Your task to perform on an android device: Open settings on Google Maps Image 0: 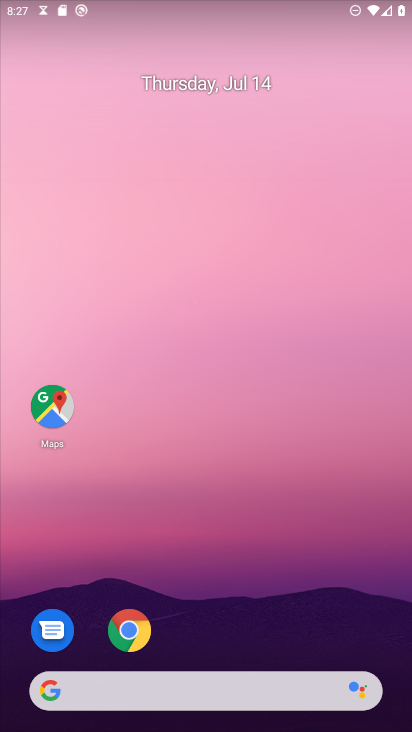
Step 0: click (50, 394)
Your task to perform on an android device: Open settings on Google Maps Image 1: 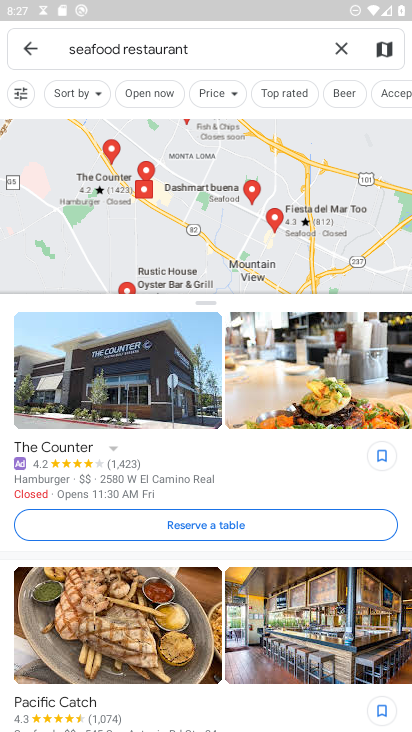
Step 1: click (31, 41)
Your task to perform on an android device: Open settings on Google Maps Image 2: 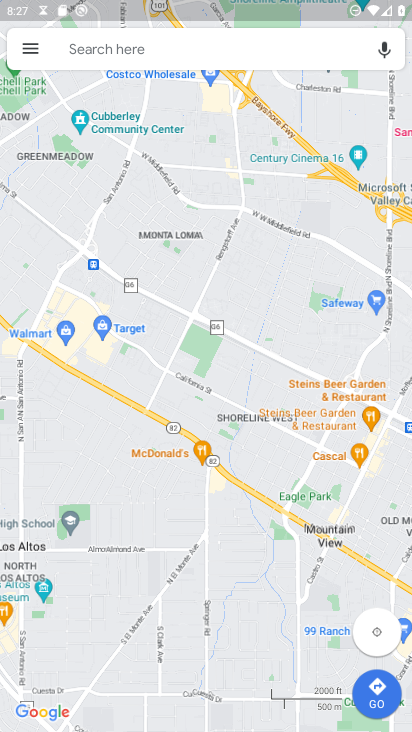
Step 2: click (31, 41)
Your task to perform on an android device: Open settings on Google Maps Image 3: 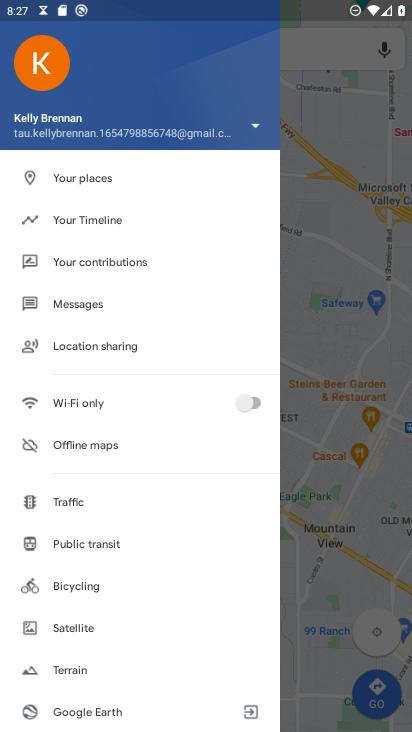
Step 3: drag from (84, 678) to (77, 381)
Your task to perform on an android device: Open settings on Google Maps Image 4: 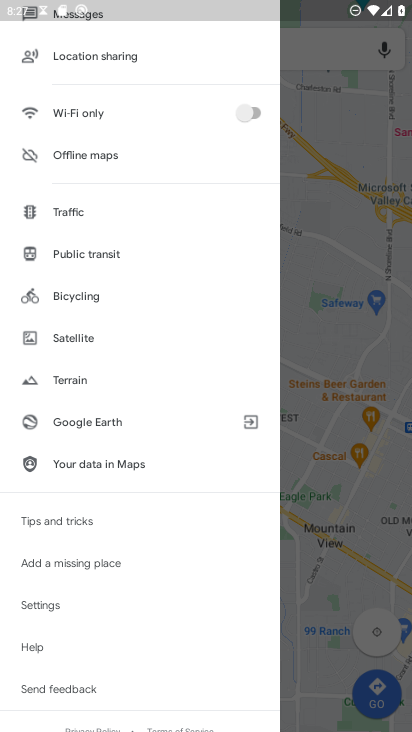
Step 4: click (59, 606)
Your task to perform on an android device: Open settings on Google Maps Image 5: 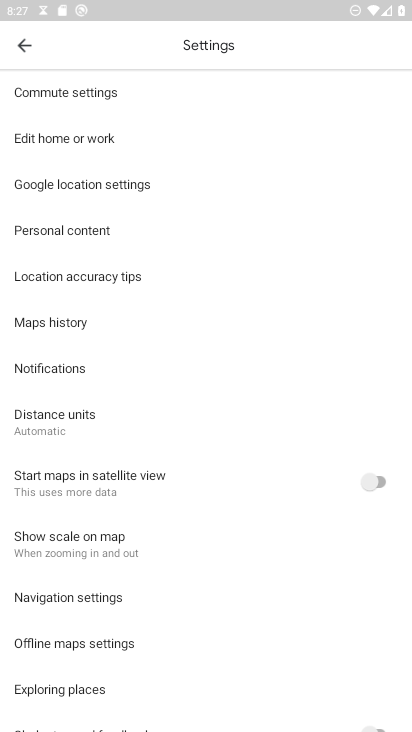
Step 5: task complete